Your task to perform on an android device: Go to location settings Image 0: 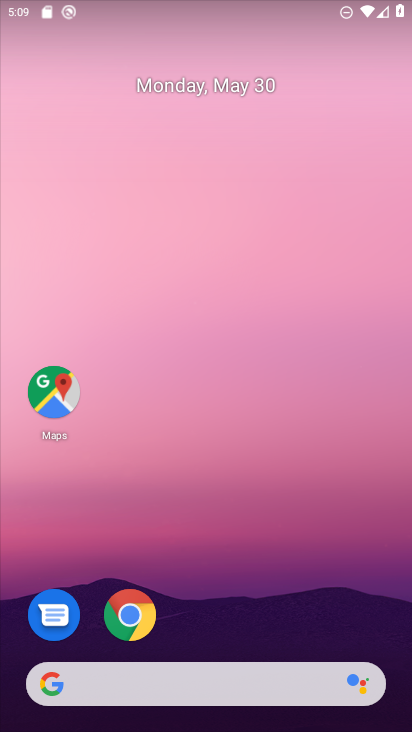
Step 0: drag from (254, 16) to (257, 565)
Your task to perform on an android device: Go to location settings Image 1: 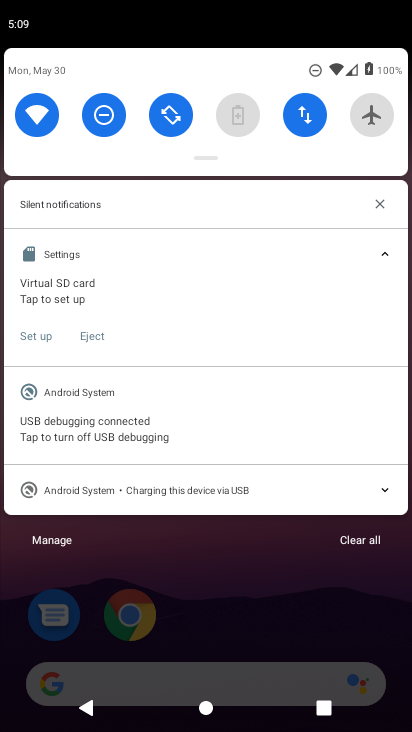
Step 1: click (256, 565)
Your task to perform on an android device: Go to location settings Image 2: 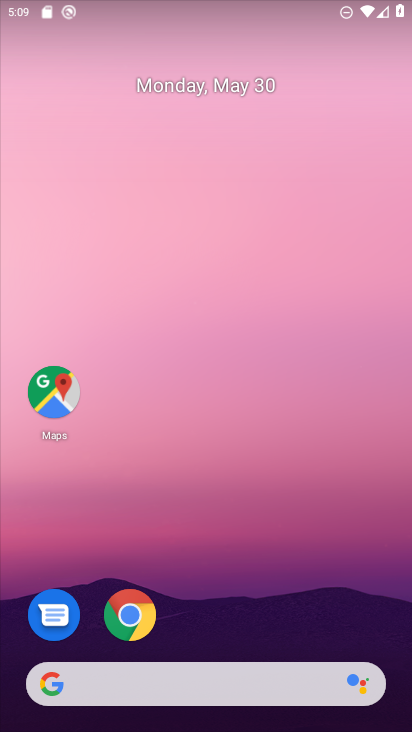
Step 2: drag from (256, 565) to (278, 61)
Your task to perform on an android device: Go to location settings Image 3: 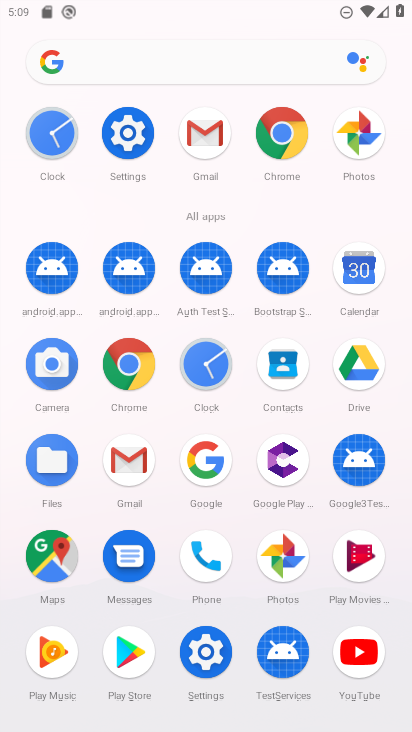
Step 3: click (131, 148)
Your task to perform on an android device: Go to location settings Image 4: 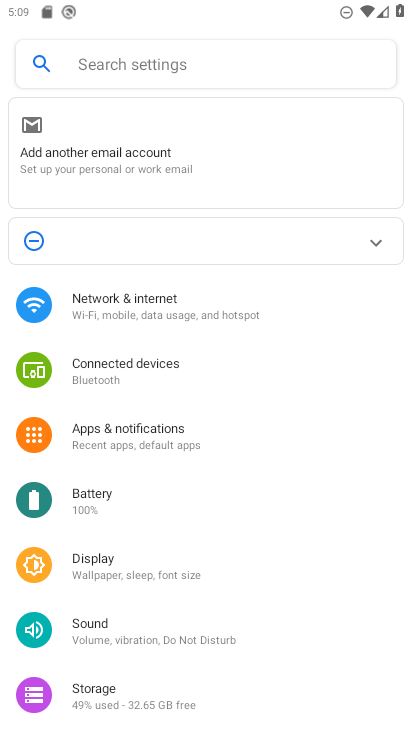
Step 4: drag from (85, 698) to (281, 5)
Your task to perform on an android device: Go to location settings Image 5: 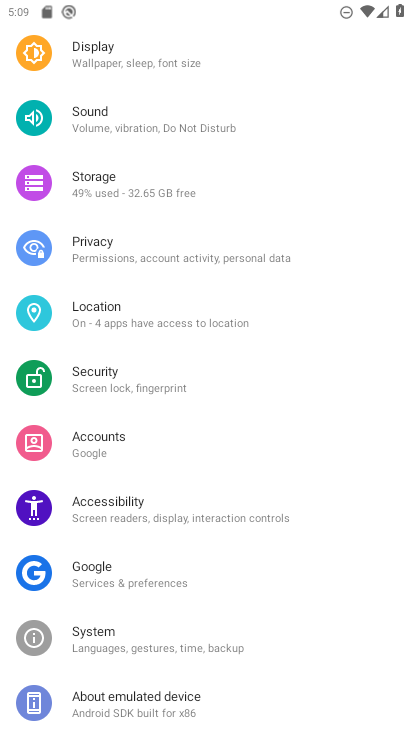
Step 5: click (109, 330)
Your task to perform on an android device: Go to location settings Image 6: 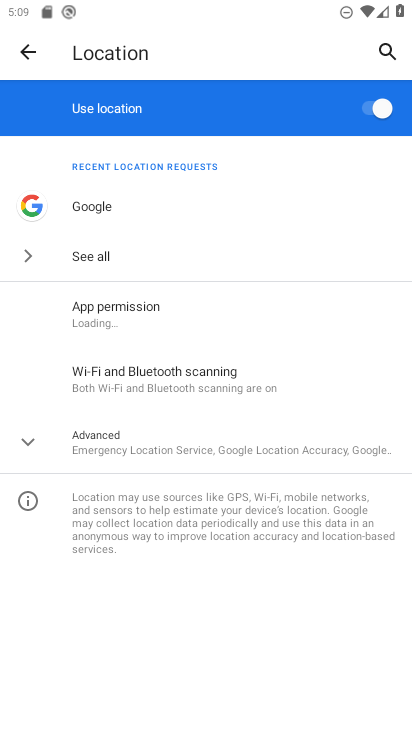
Step 6: task complete